Your task to perform on an android device: Clear the cart on costco.com. Search for "macbook pro" on costco.com, select the first entry, add it to the cart, then select checkout. Image 0: 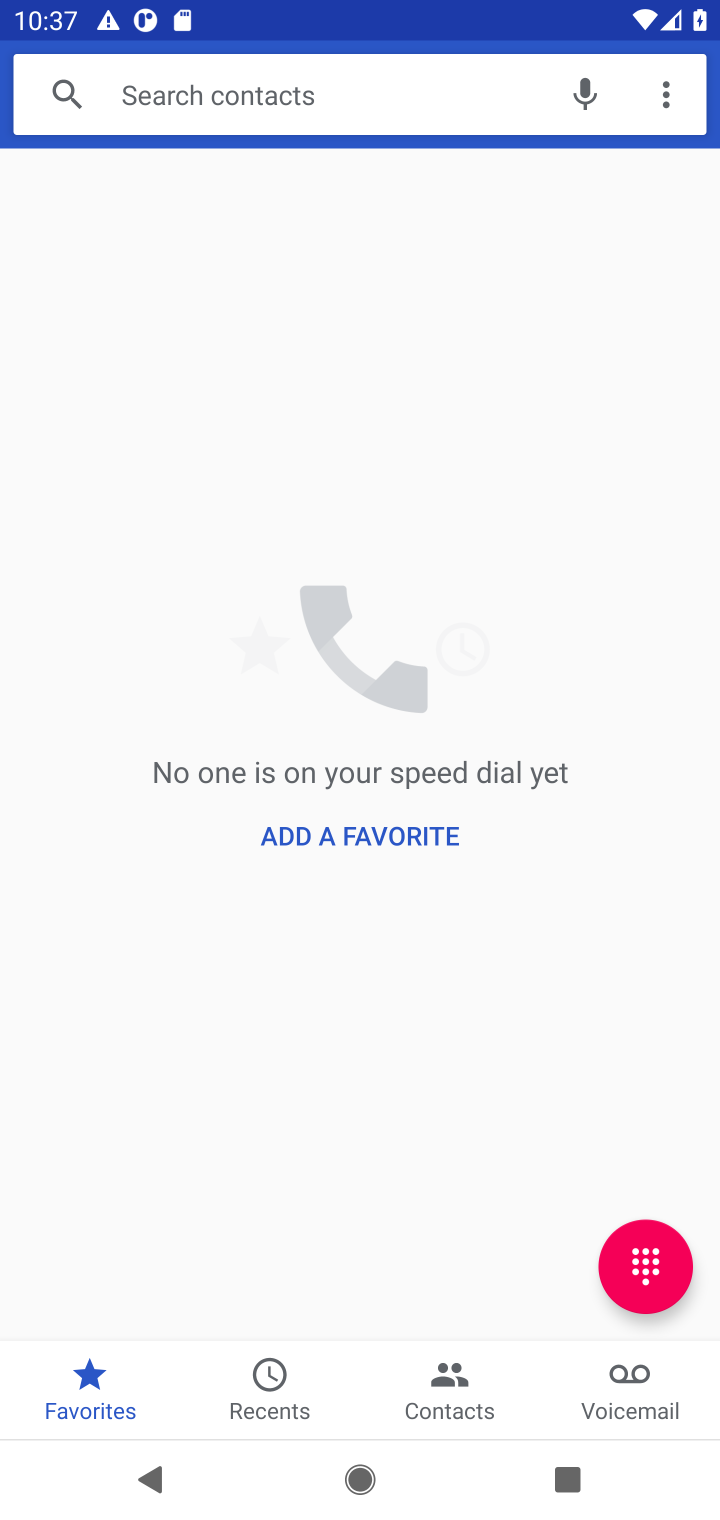
Step 0: press home button
Your task to perform on an android device: Clear the cart on costco.com. Search for "macbook pro" on costco.com, select the first entry, add it to the cart, then select checkout. Image 1: 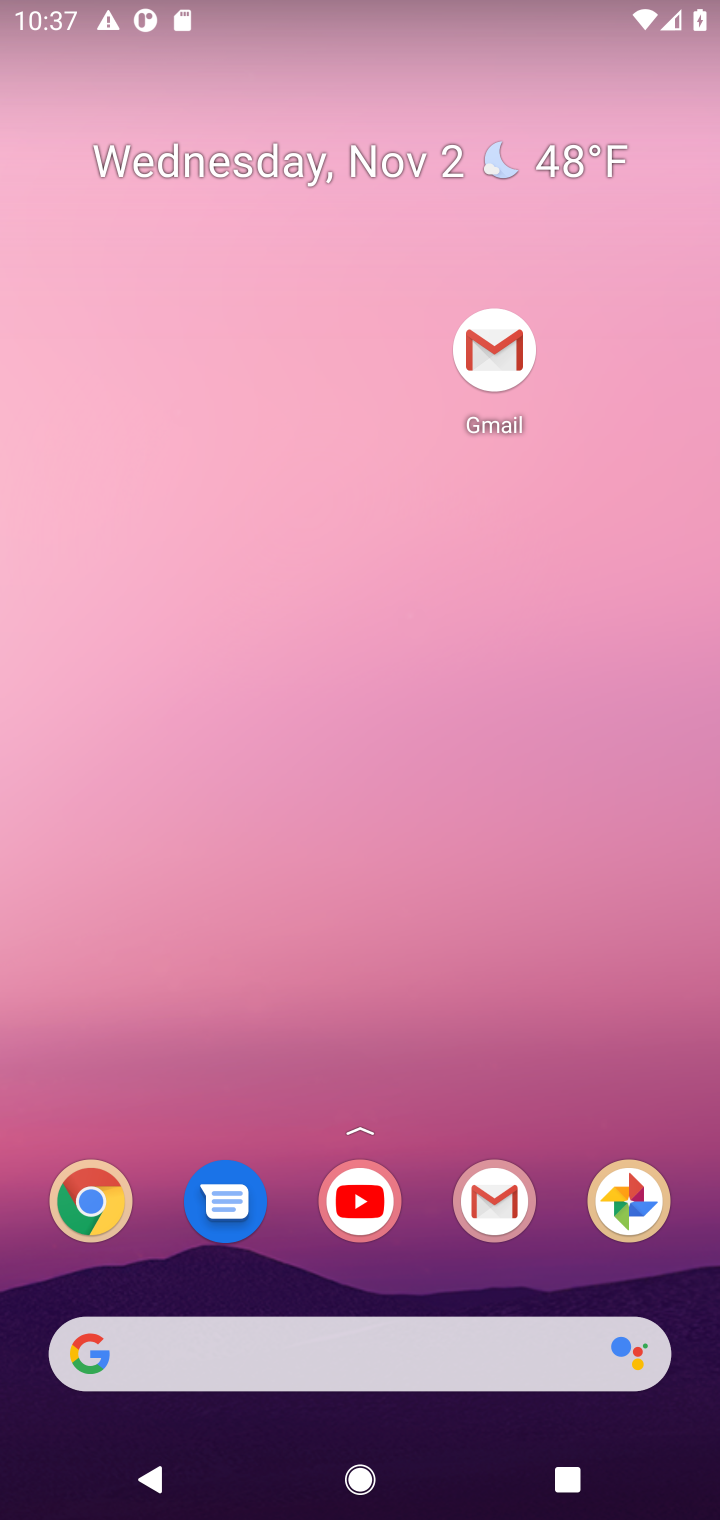
Step 1: drag from (424, 1306) to (432, 304)
Your task to perform on an android device: Clear the cart on costco.com. Search for "macbook pro" on costco.com, select the first entry, add it to the cart, then select checkout. Image 2: 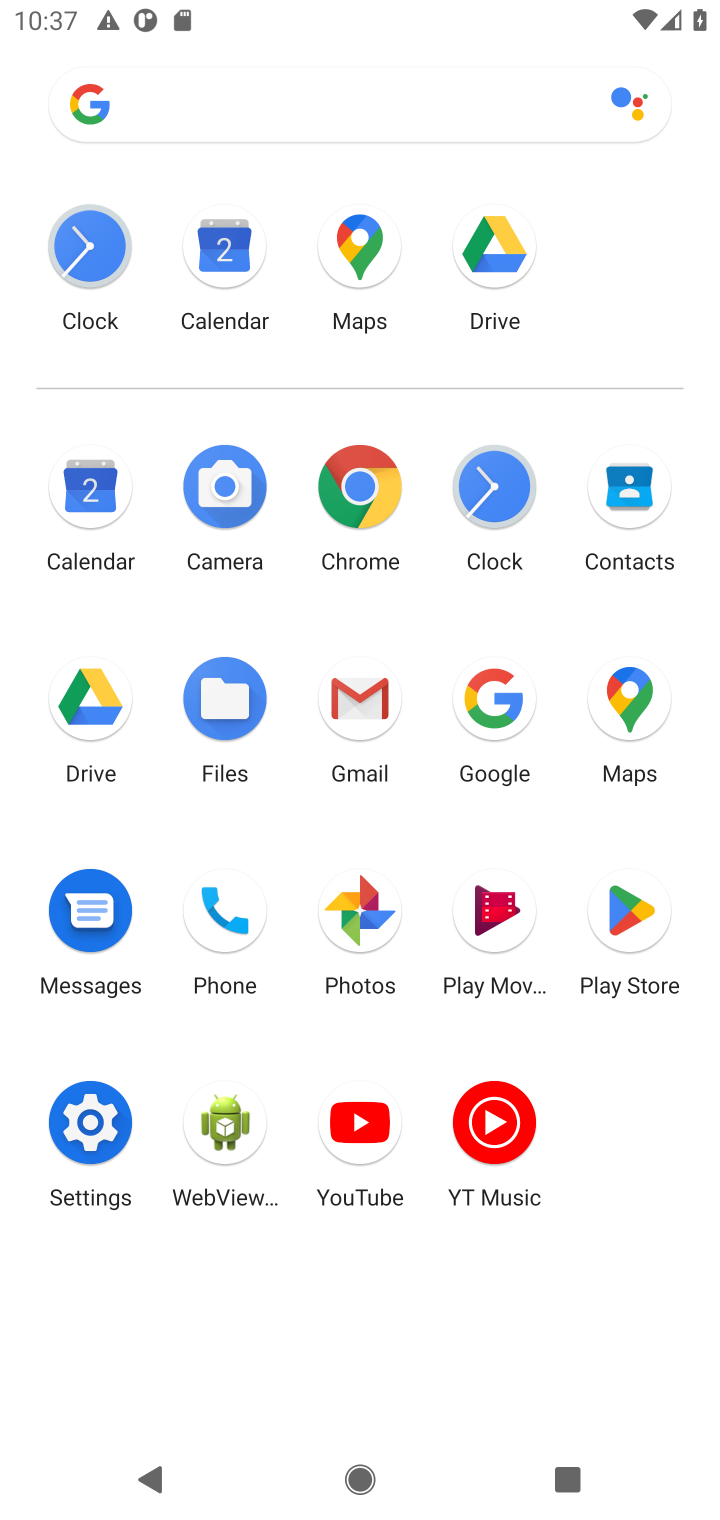
Step 2: click (365, 498)
Your task to perform on an android device: Clear the cart on costco.com. Search for "macbook pro" on costco.com, select the first entry, add it to the cart, then select checkout. Image 3: 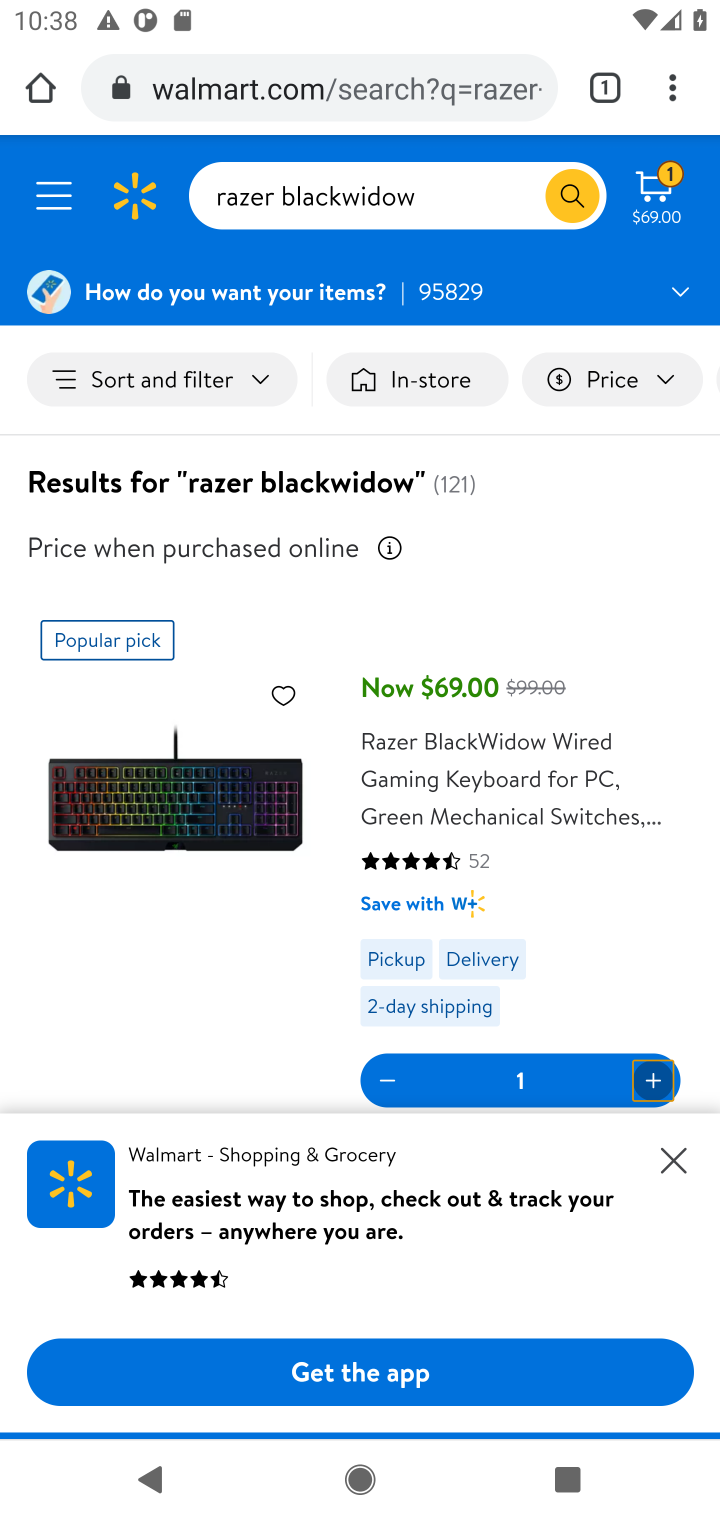
Step 3: click (353, 108)
Your task to perform on an android device: Clear the cart on costco.com. Search for "macbook pro" on costco.com, select the first entry, add it to the cart, then select checkout. Image 4: 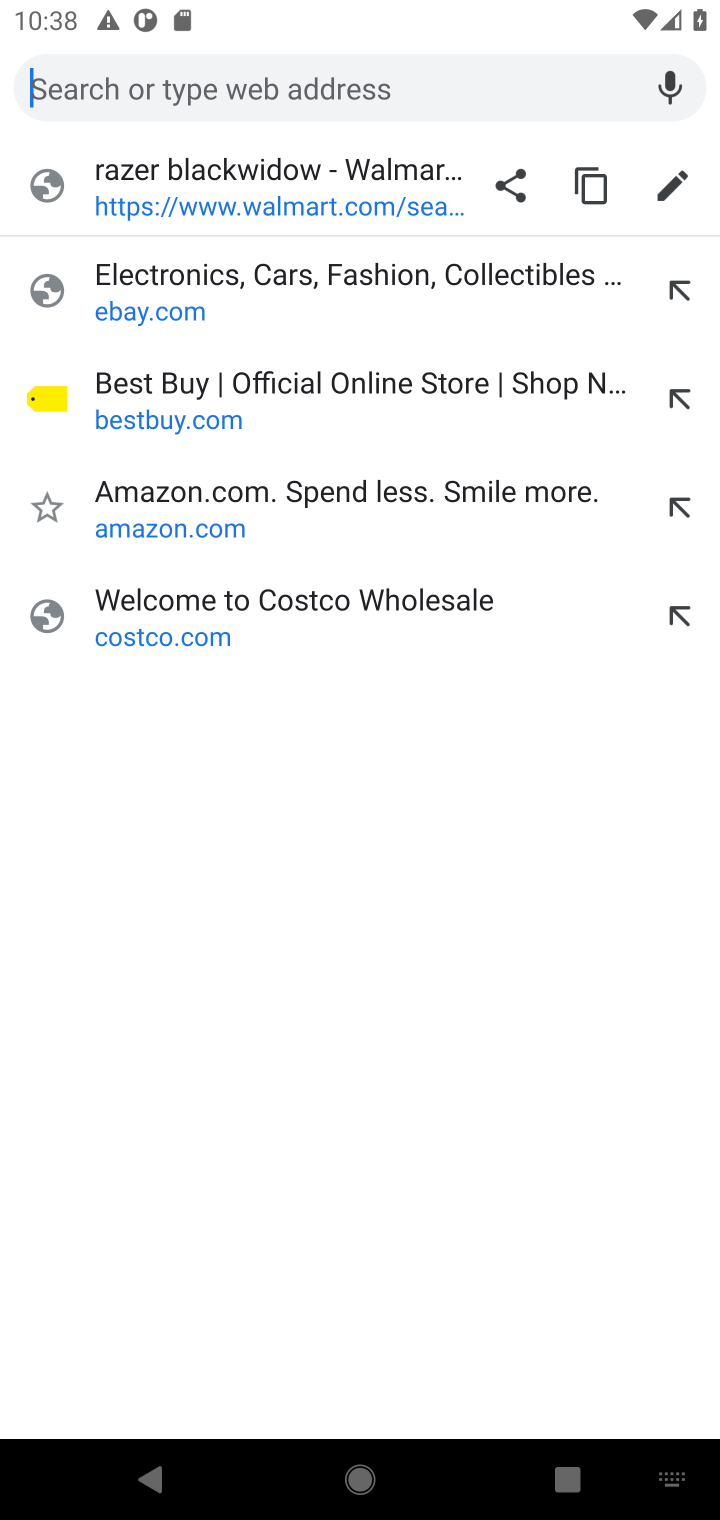
Step 4: type "costco.com"
Your task to perform on an android device: Clear the cart on costco.com. Search for "macbook pro" on costco.com, select the first entry, add it to the cart, then select checkout. Image 5: 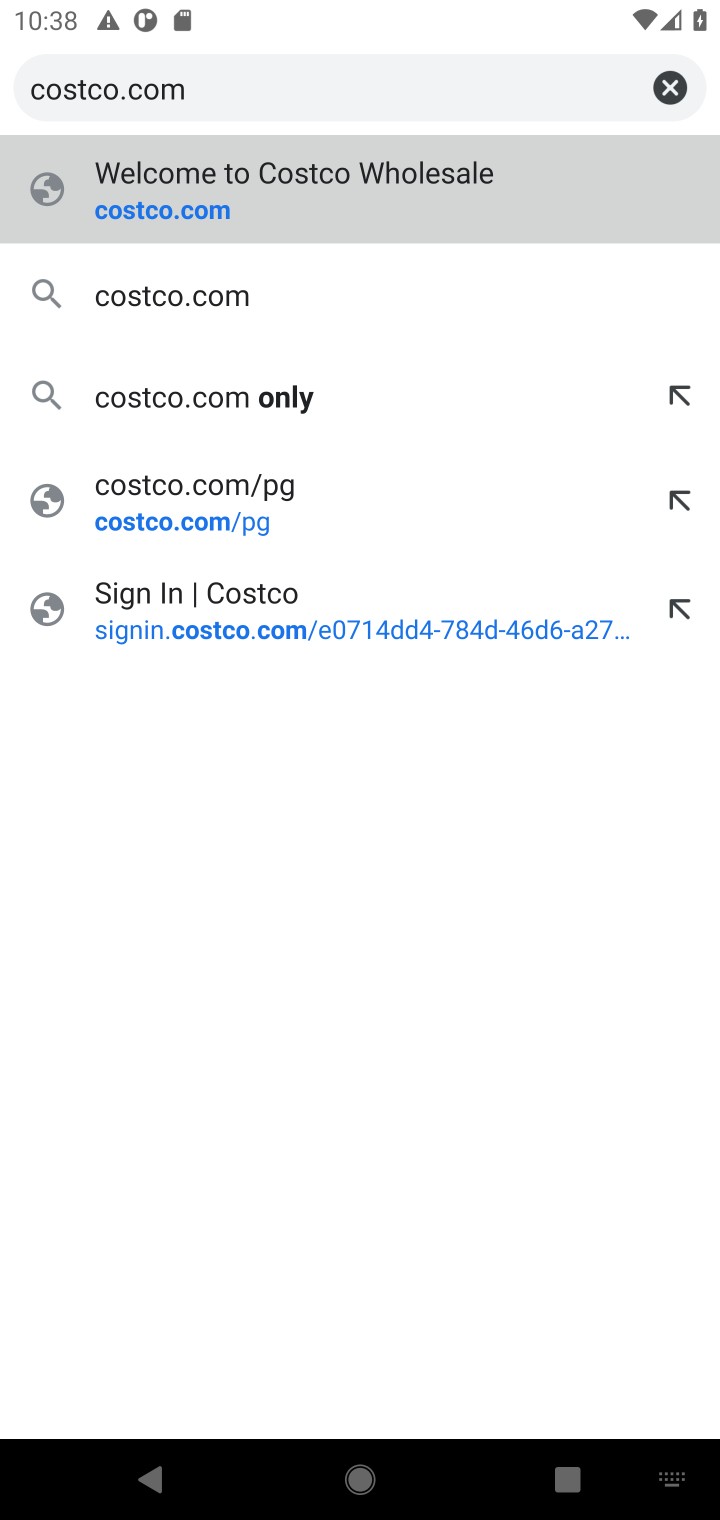
Step 5: press enter
Your task to perform on an android device: Clear the cart on costco.com. Search for "macbook pro" on costco.com, select the first entry, add it to the cart, then select checkout. Image 6: 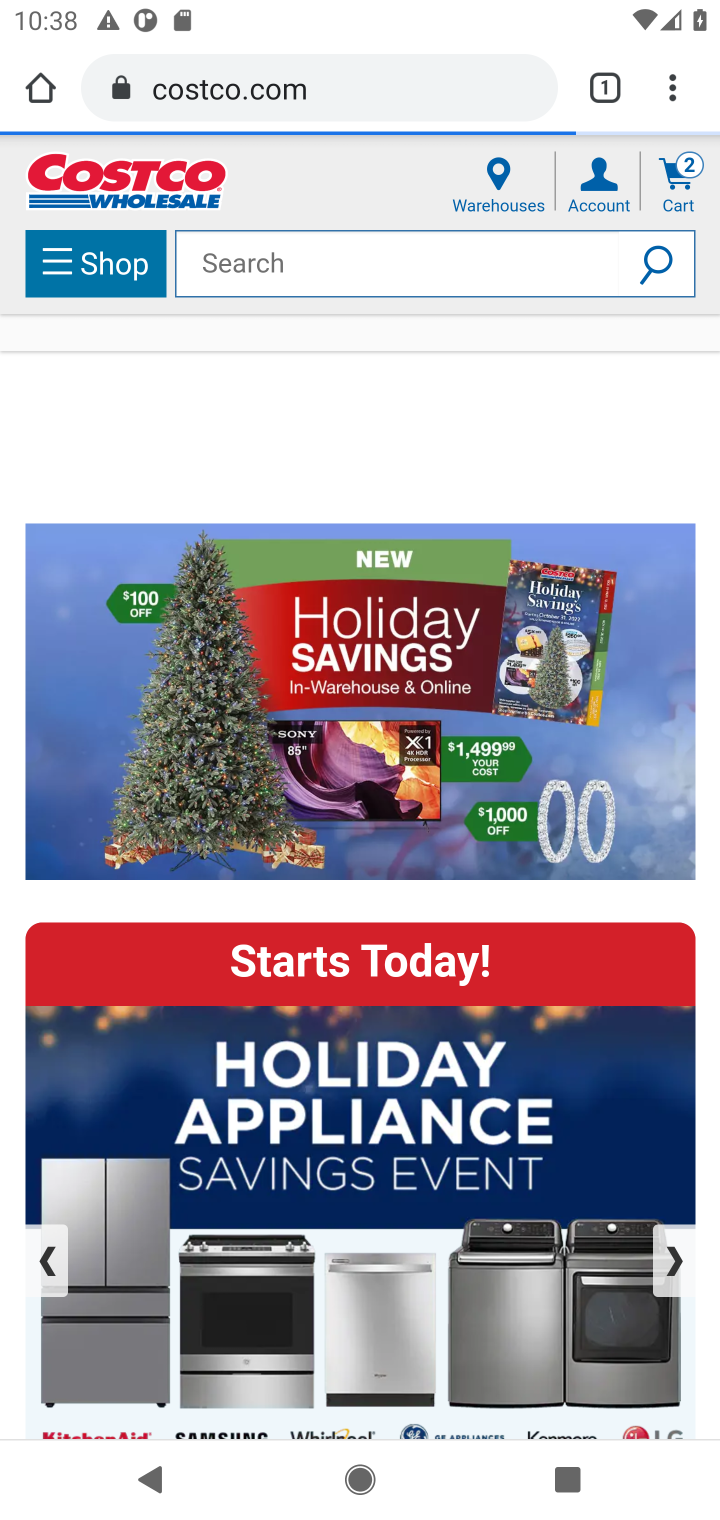
Step 6: click (672, 167)
Your task to perform on an android device: Clear the cart on costco.com. Search for "macbook pro" on costco.com, select the first entry, add it to the cart, then select checkout. Image 7: 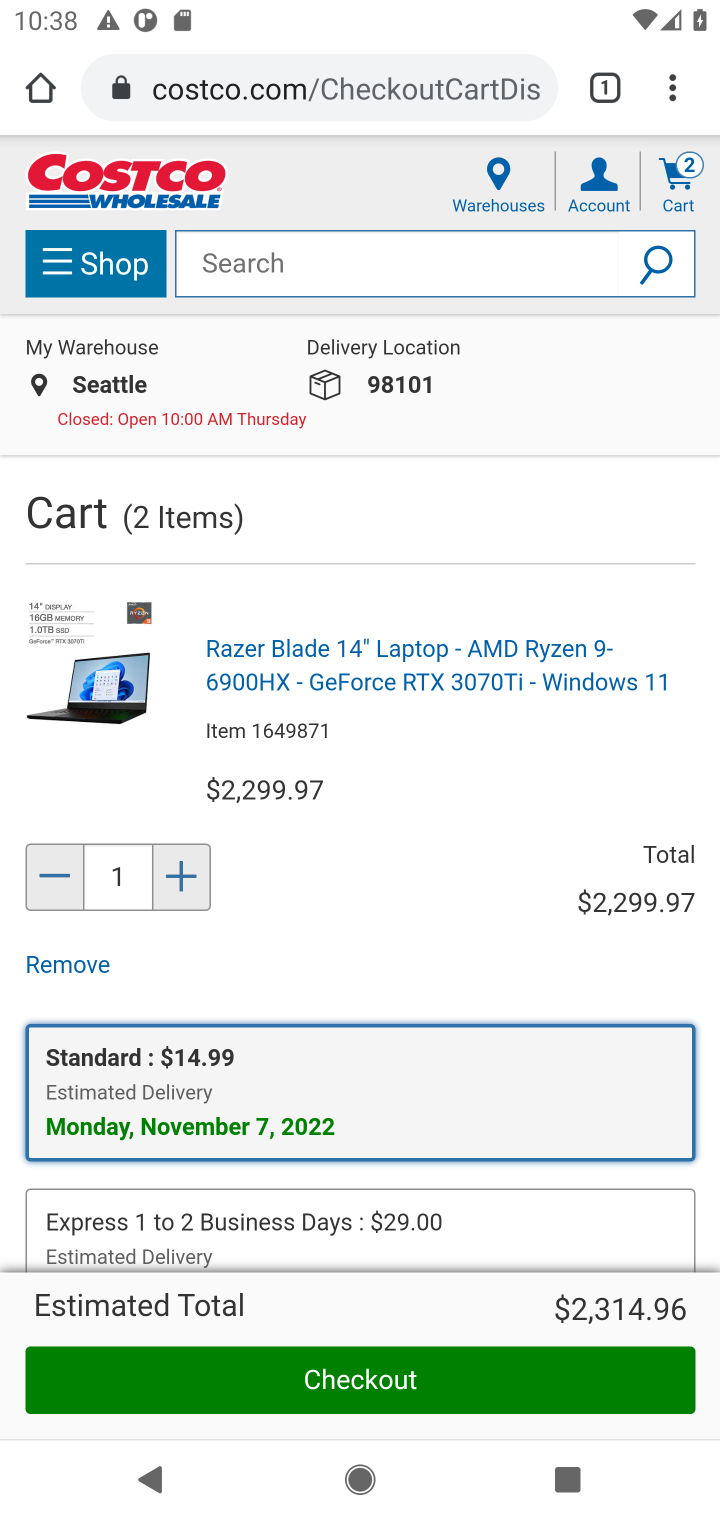
Step 7: click (99, 960)
Your task to perform on an android device: Clear the cart on costco.com. Search for "macbook pro" on costco.com, select the first entry, add it to the cart, then select checkout. Image 8: 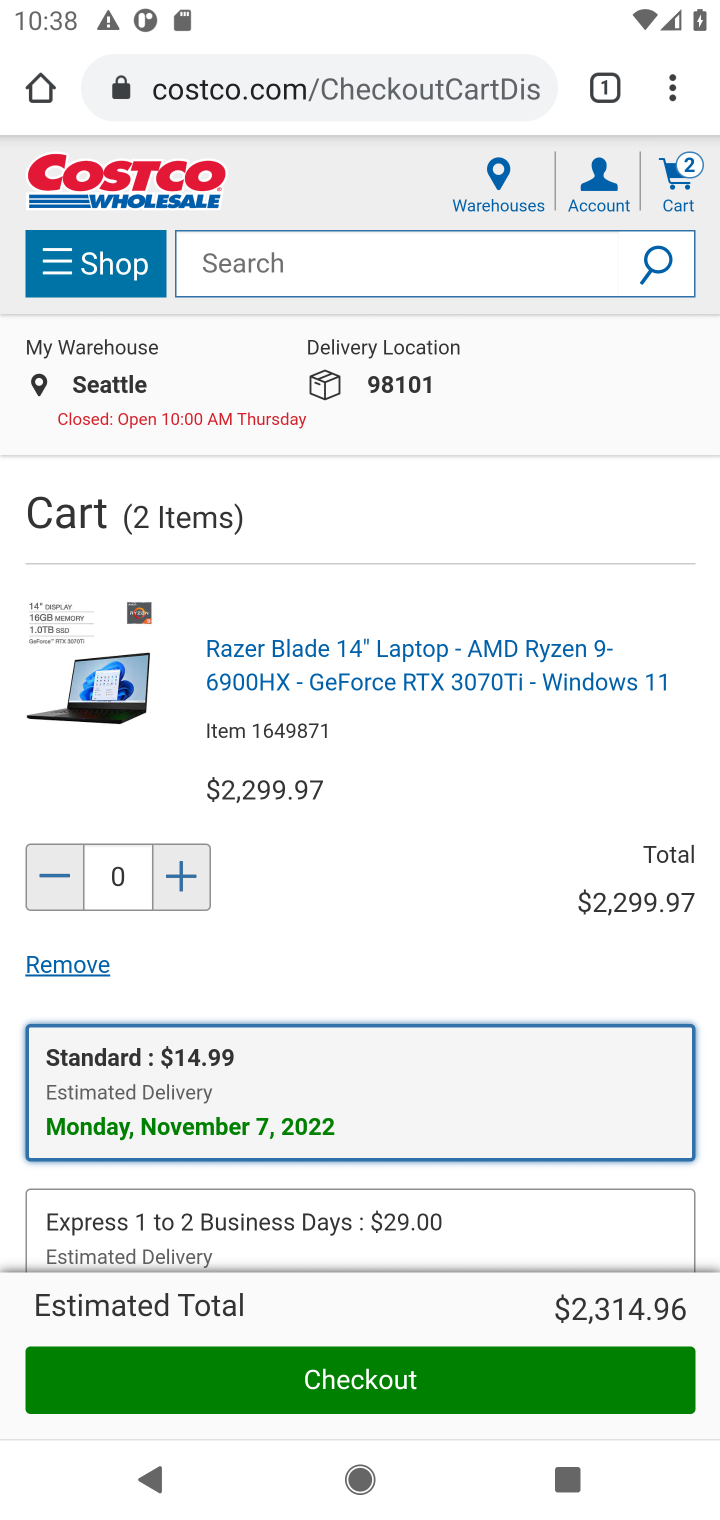
Step 8: click (53, 962)
Your task to perform on an android device: Clear the cart on costco.com. Search for "macbook pro" on costco.com, select the first entry, add it to the cart, then select checkout. Image 9: 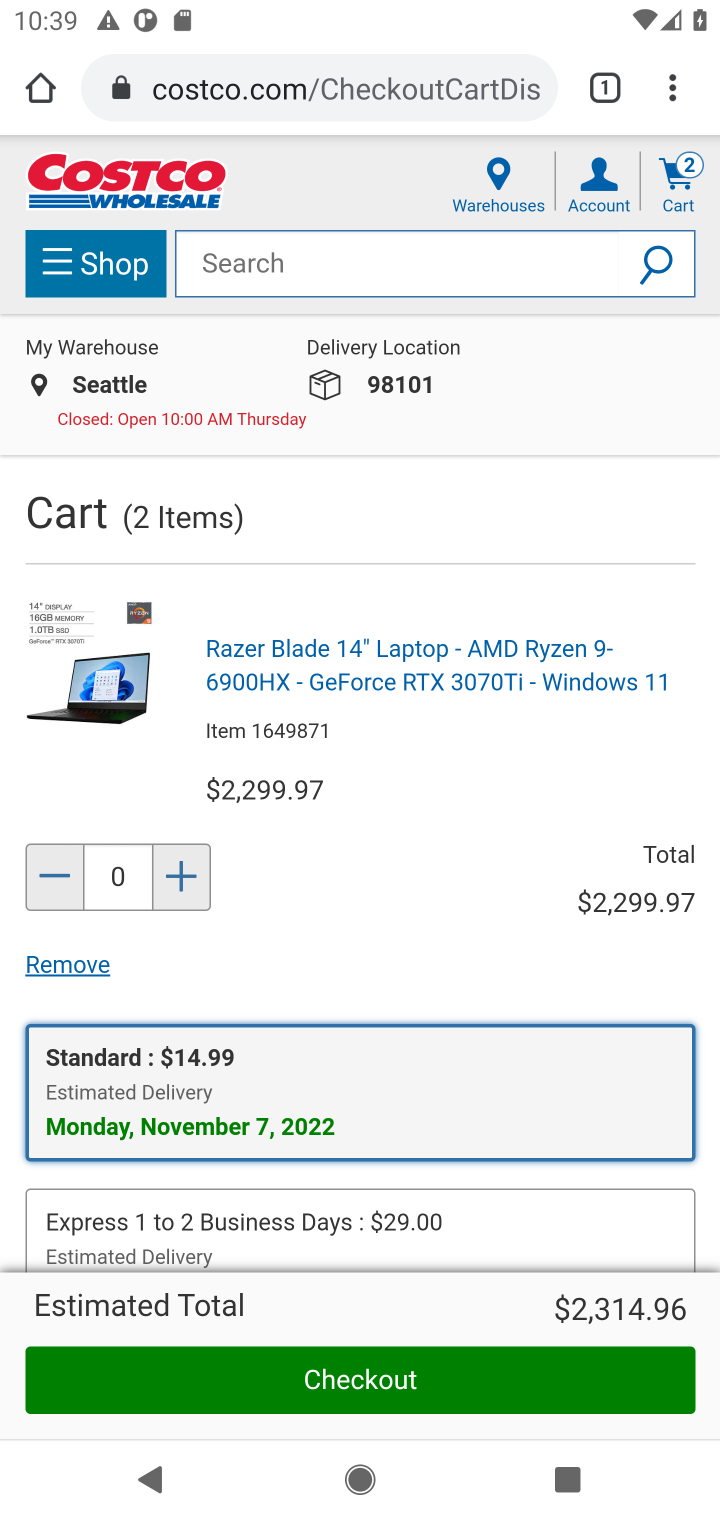
Step 9: click (70, 959)
Your task to perform on an android device: Clear the cart on costco.com. Search for "macbook pro" on costco.com, select the first entry, add it to the cart, then select checkout. Image 10: 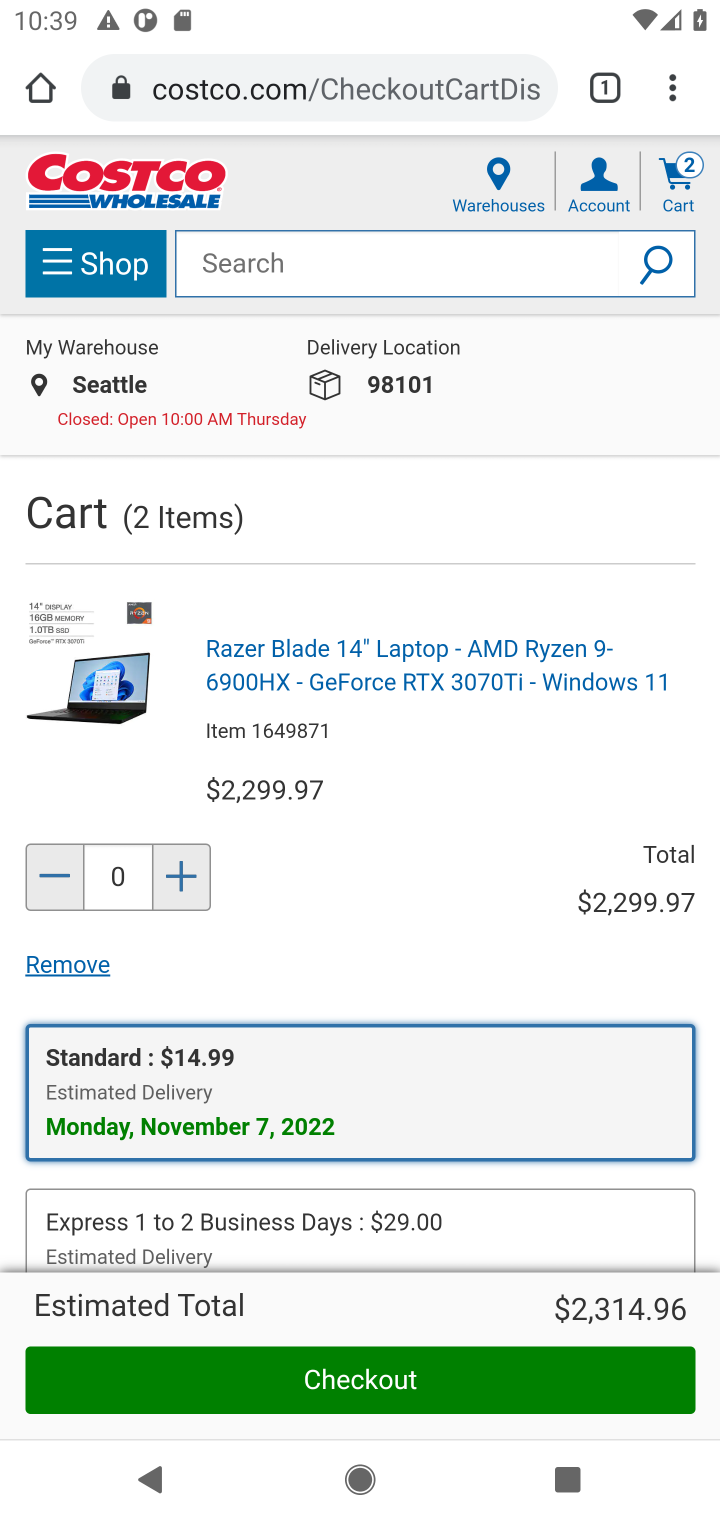
Step 10: click (414, 244)
Your task to perform on an android device: Clear the cart on costco.com. Search for "macbook pro" on costco.com, select the first entry, add it to the cart, then select checkout. Image 11: 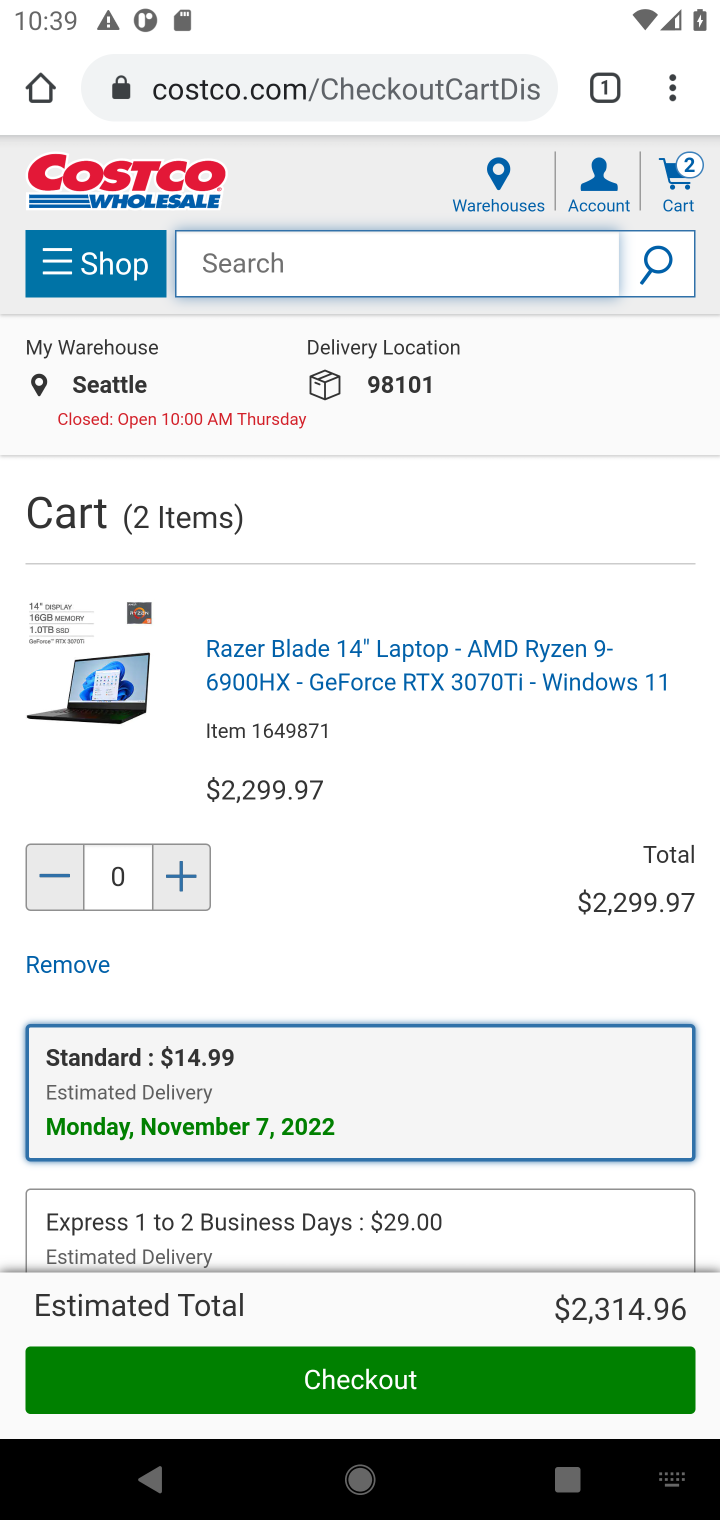
Step 11: type "macbook pro"
Your task to perform on an android device: Clear the cart on costco.com. Search for "macbook pro" on costco.com, select the first entry, add it to the cart, then select checkout. Image 12: 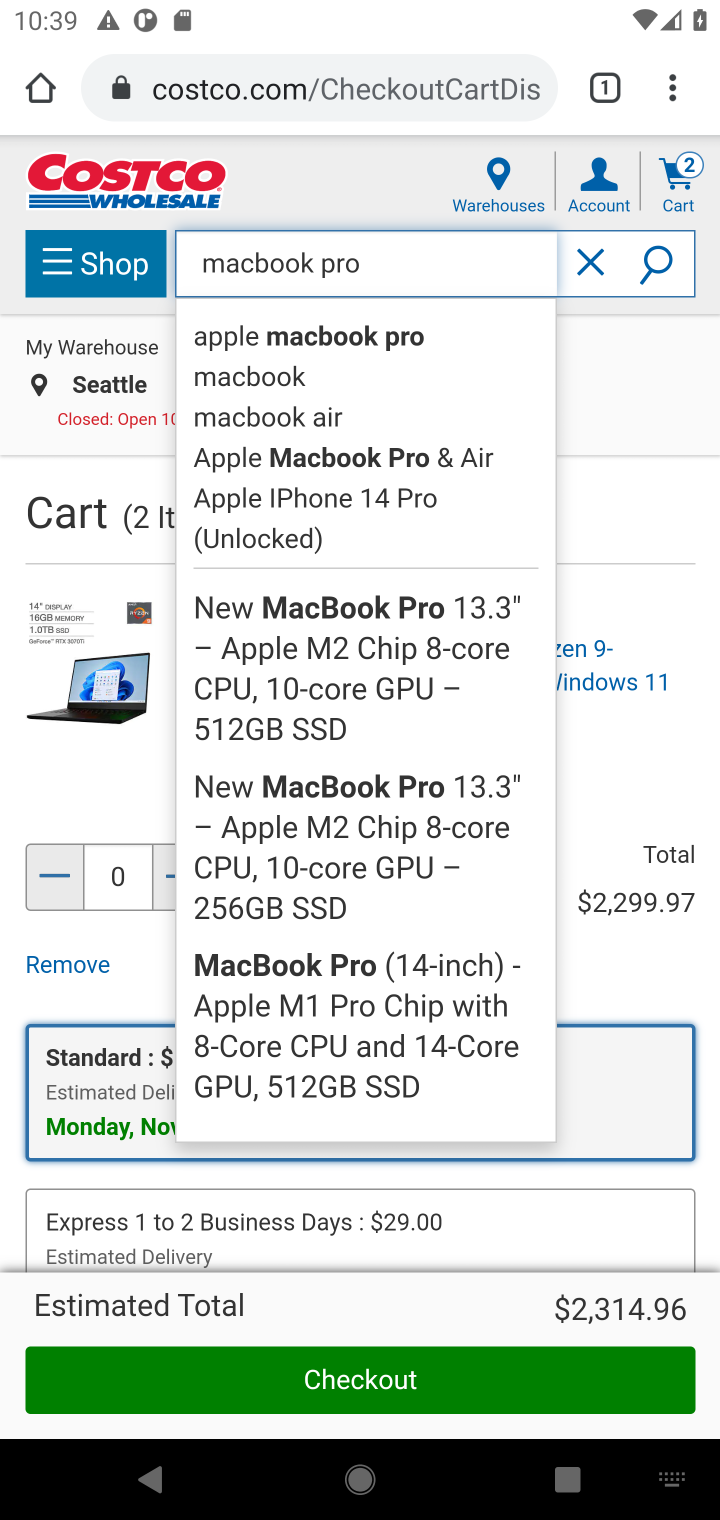
Step 12: press enter
Your task to perform on an android device: Clear the cart on costco.com. Search for "macbook pro" on costco.com, select the first entry, add it to the cart, then select checkout. Image 13: 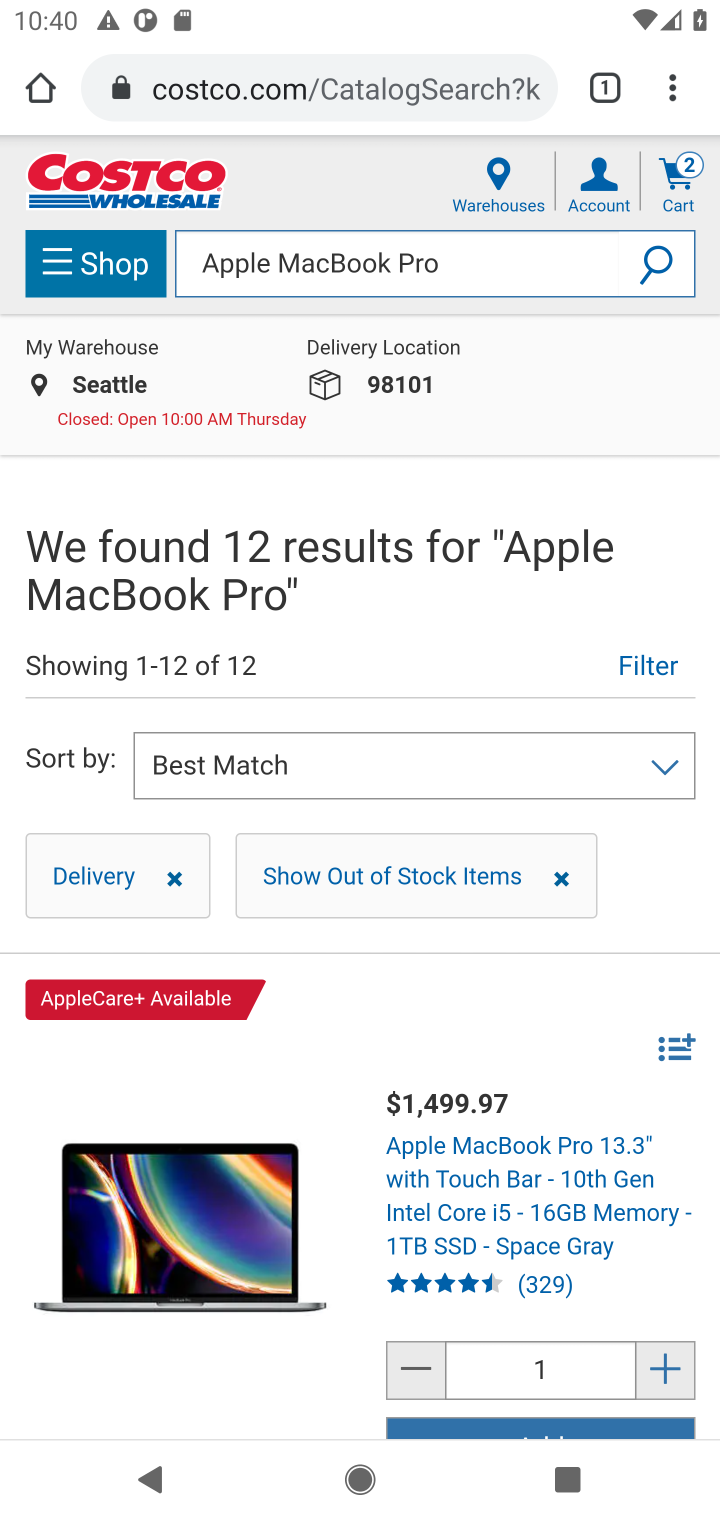
Step 13: click (486, 1221)
Your task to perform on an android device: Clear the cart on costco.com. Search for "macbook pro" on costco.com, select the first entry, add it to the cart, then select checkout. Image 14: 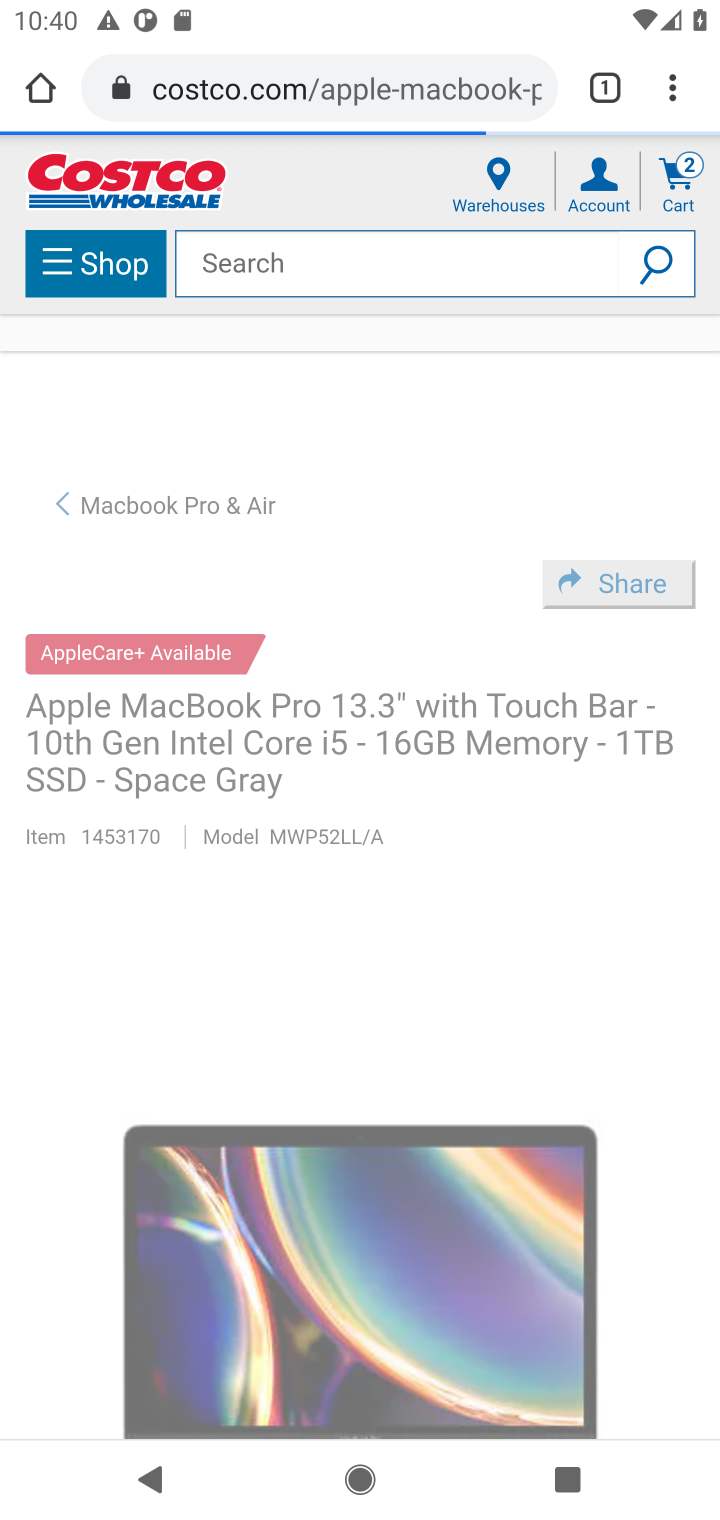
Step 14: drag from (486, 1221) to (419, 392)
Your task to perform on an android device: Clear the cart on costco.com. Search for "macbook pro" on costco.com, select the first entry, add it to the cart, then select checkout. Image 15: 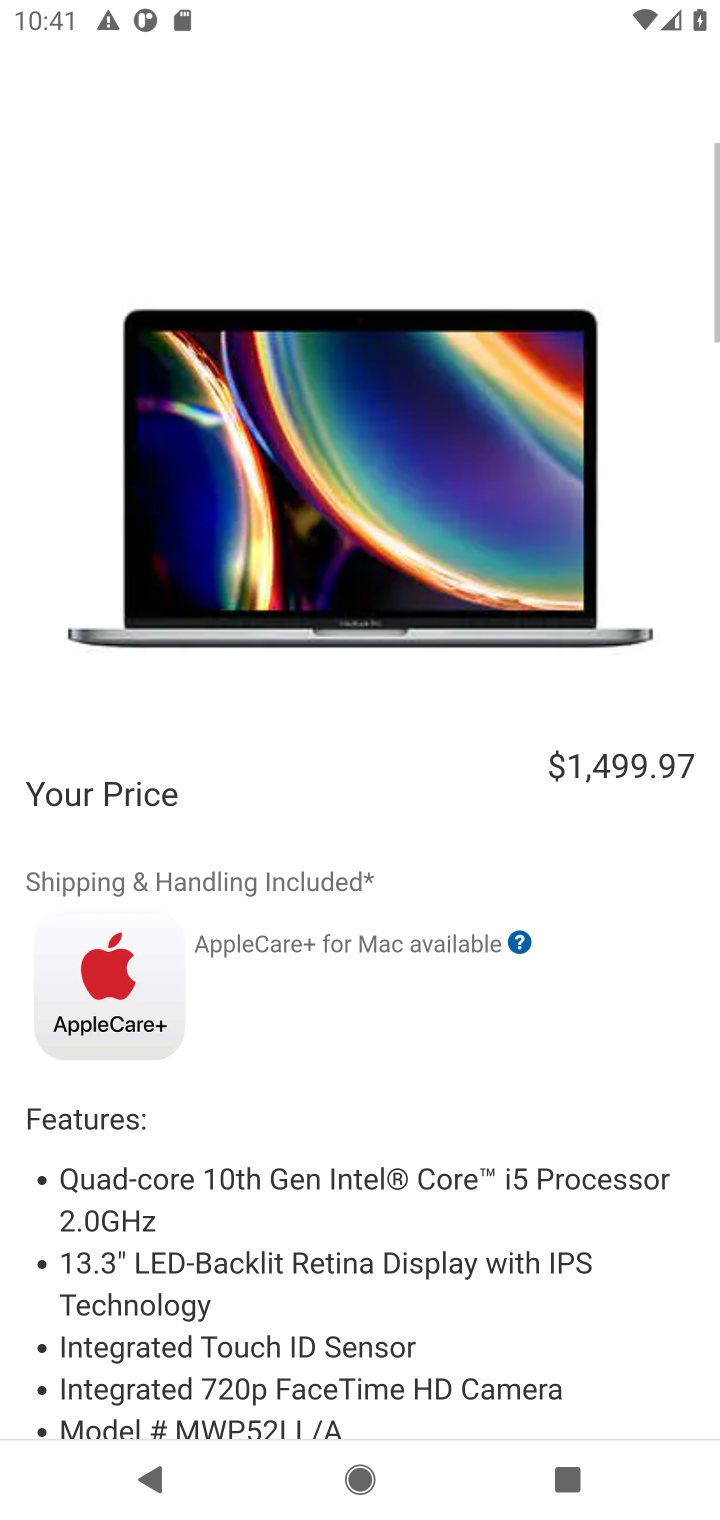
Step 15: drag from (360, 1237) to (380, 417)
Your task to perform on an android device: Clear the cart on costco.com. Search for "macbook pro" on costco.com, select the first entry, add it to the cart, then select checkout. Image 16: 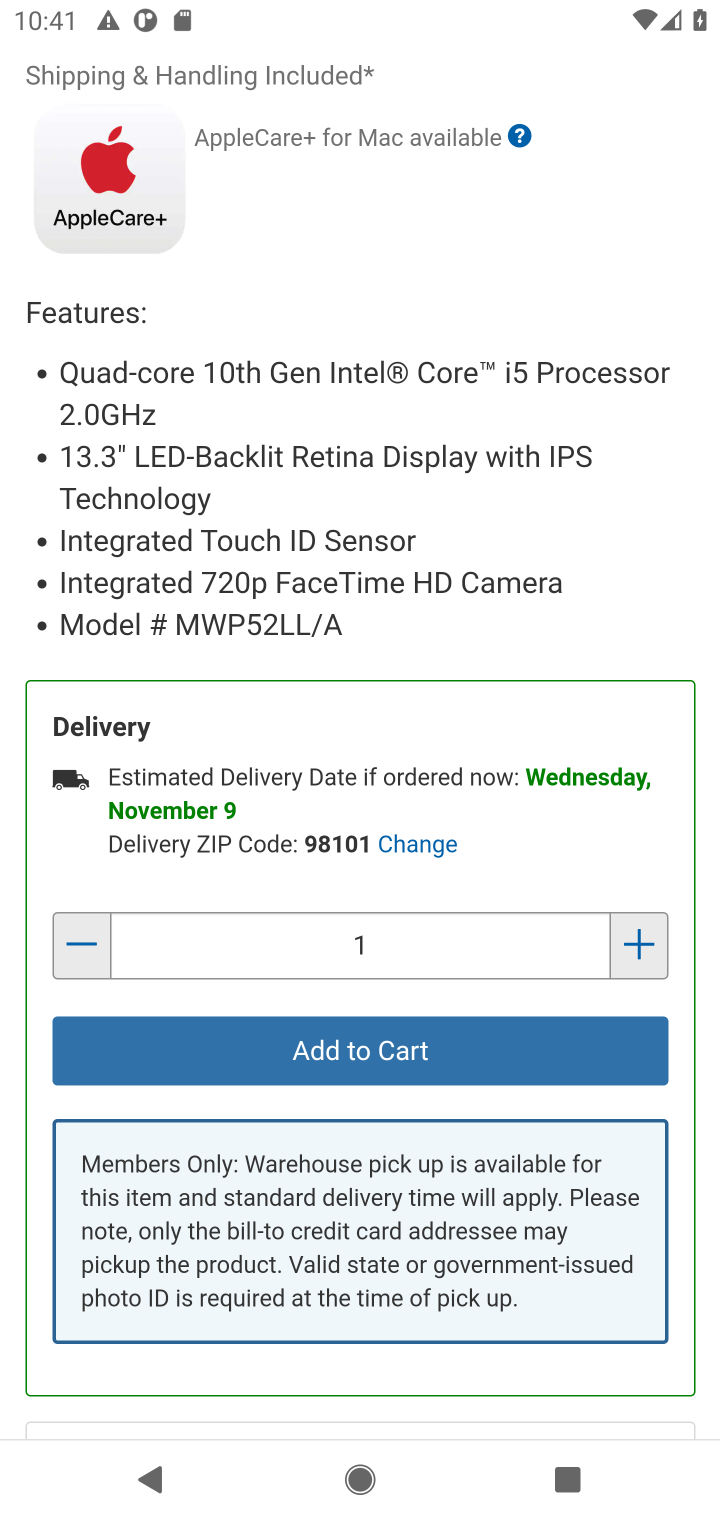
Step 16: click (461, 1048)
Your task to perform on an android device: Clear the cart on costco.com. Search for "macbook pro" on costco.com, select the first entry, add it to the cart, then select checkout. Image 17: 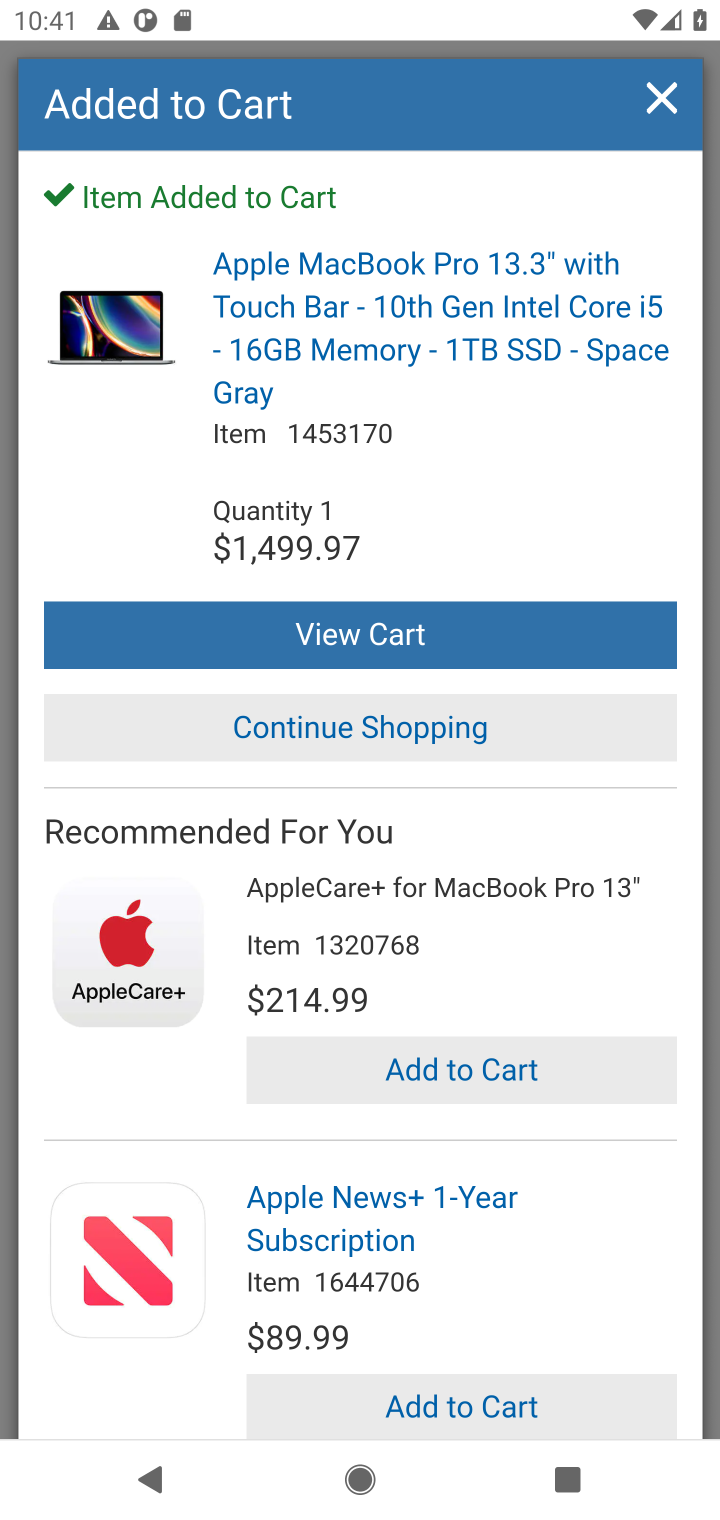
Step 17: click (451, 622)
Your task to perform on an android device: Clear the cart on costco.com. Search for "macbook pro" on costco.com, select the first entry, add it to the cart, then select checkout. Image 18: 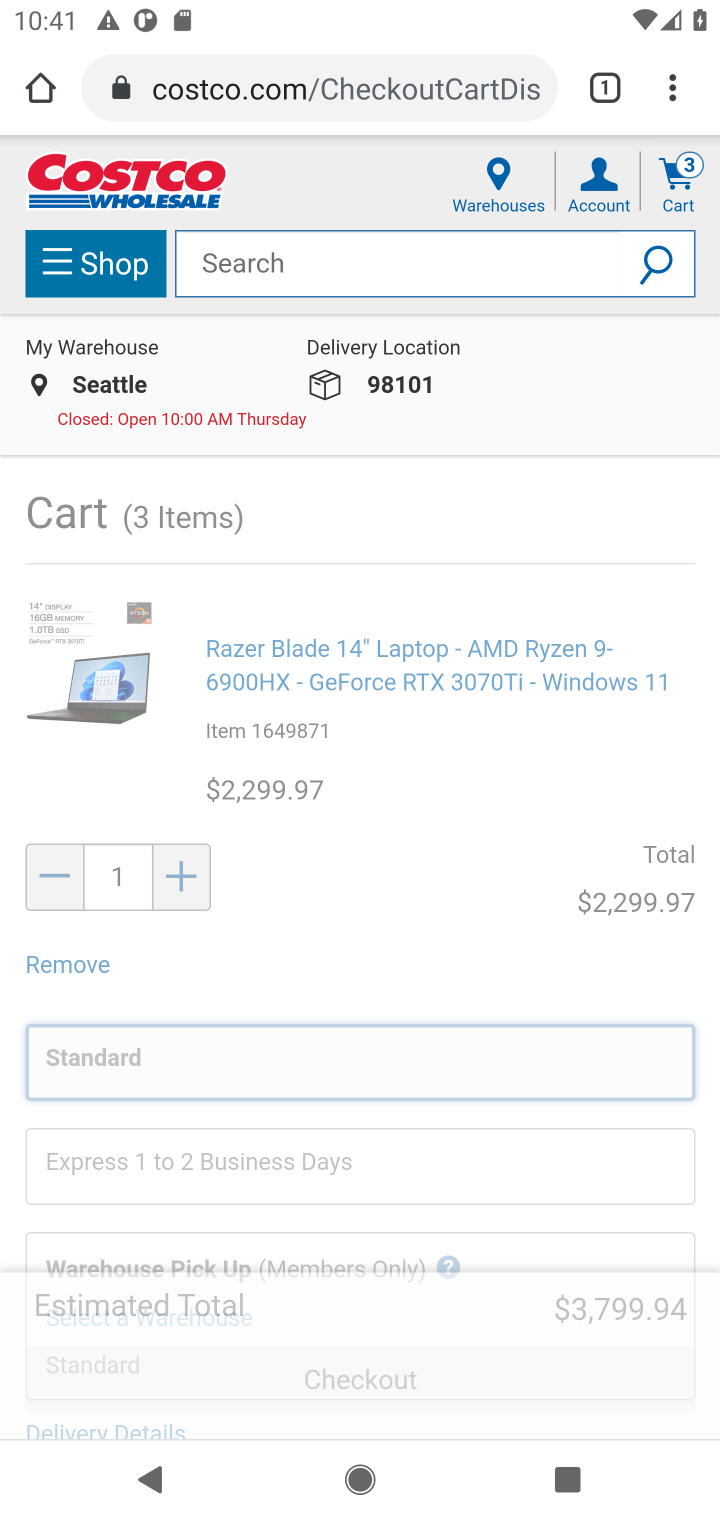
Step 18: drag from (332, 1058) to (373, 384)
Your task to perform on an android device: Clear the cart on costco.com. Search for "macbook pro" on costco.com, select the first entry, add it to the cart, then select checkout. Image 19: 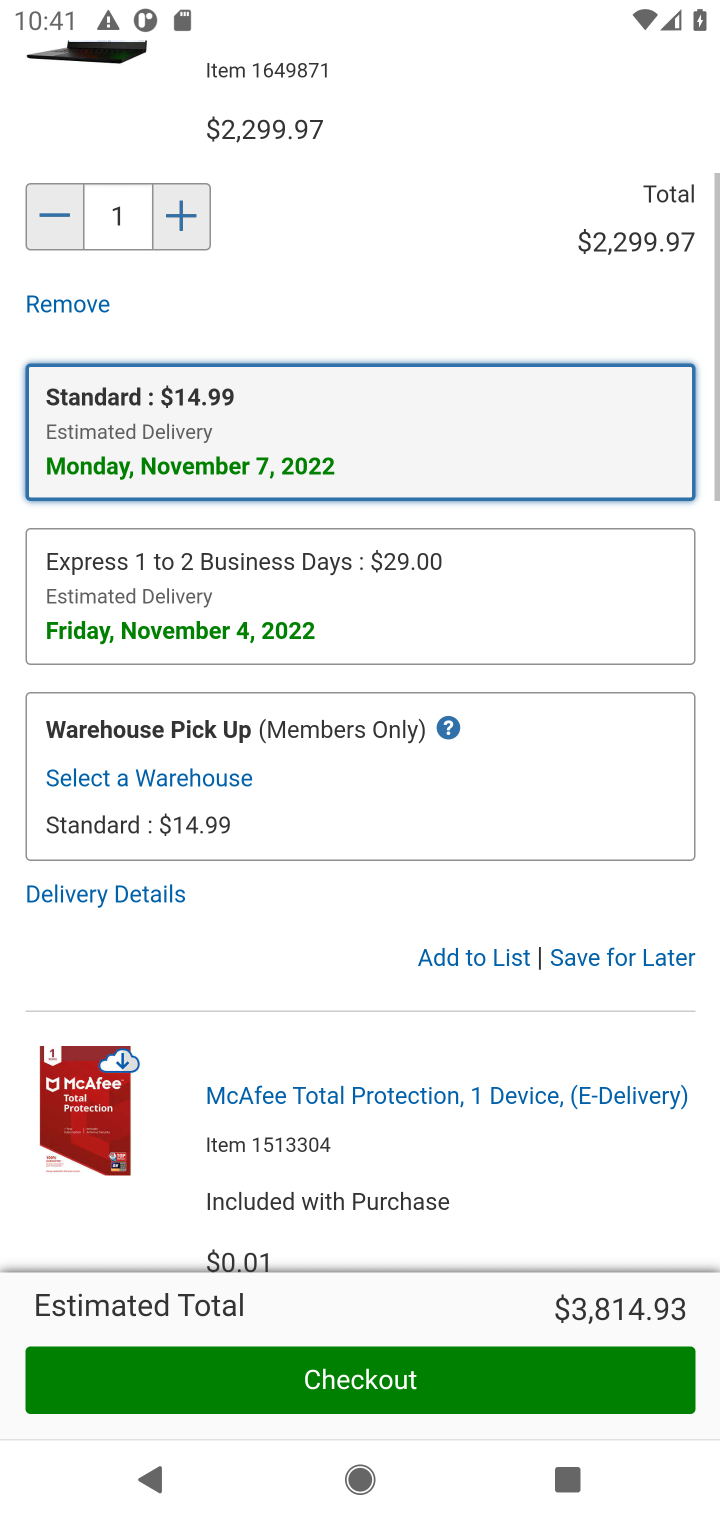
Step 19: click (435, 1379)
Your task to perform on an android device: Clear the cart on costco.com. Search for "macbook pro" on costco.com, select the first entry, add it to the cart, then select checkout. Image 20: 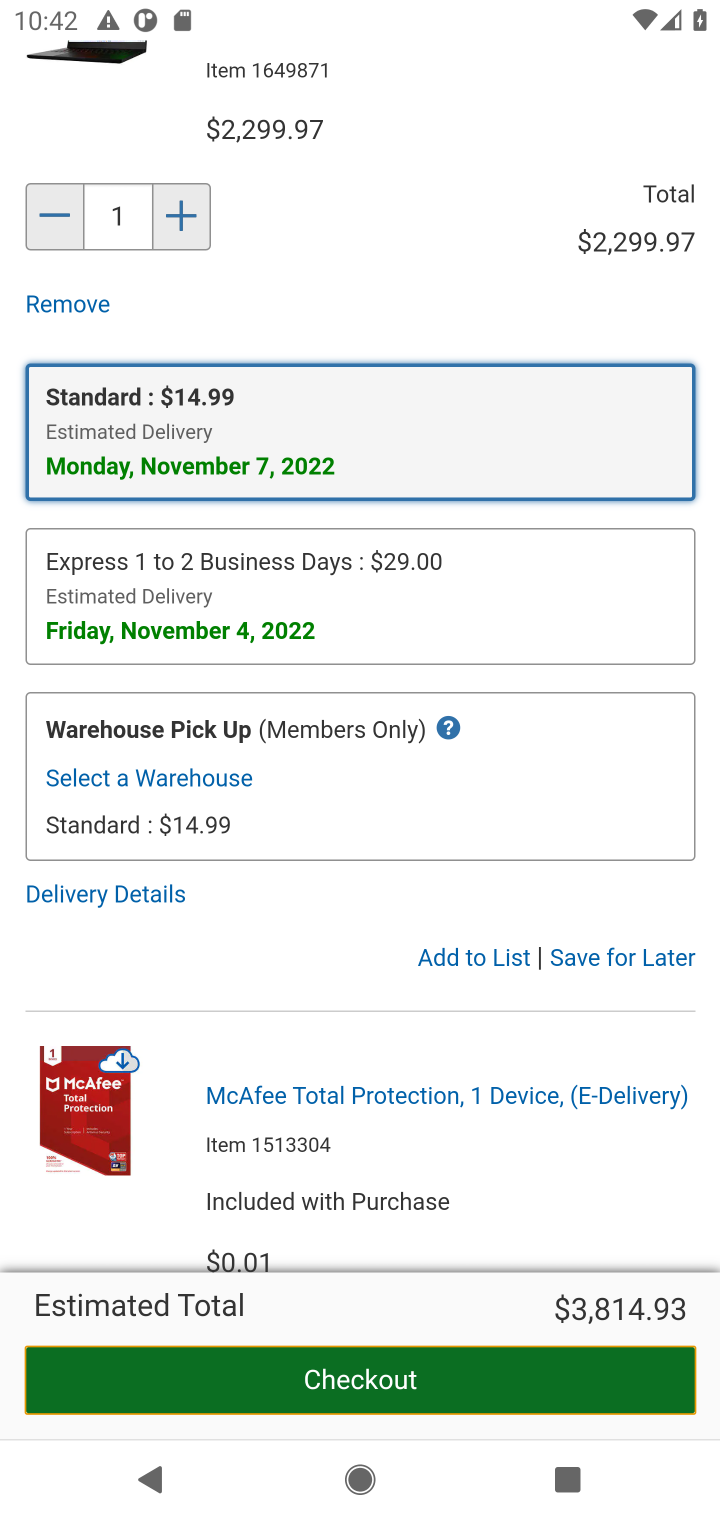
Step 20: click (619, 1381)
Your task to perform on an android device: Clear the cart on costco.com. Search for "macbook pro" on costco.com, select the first entry, add it to the cart, then select checkout. Image 21: 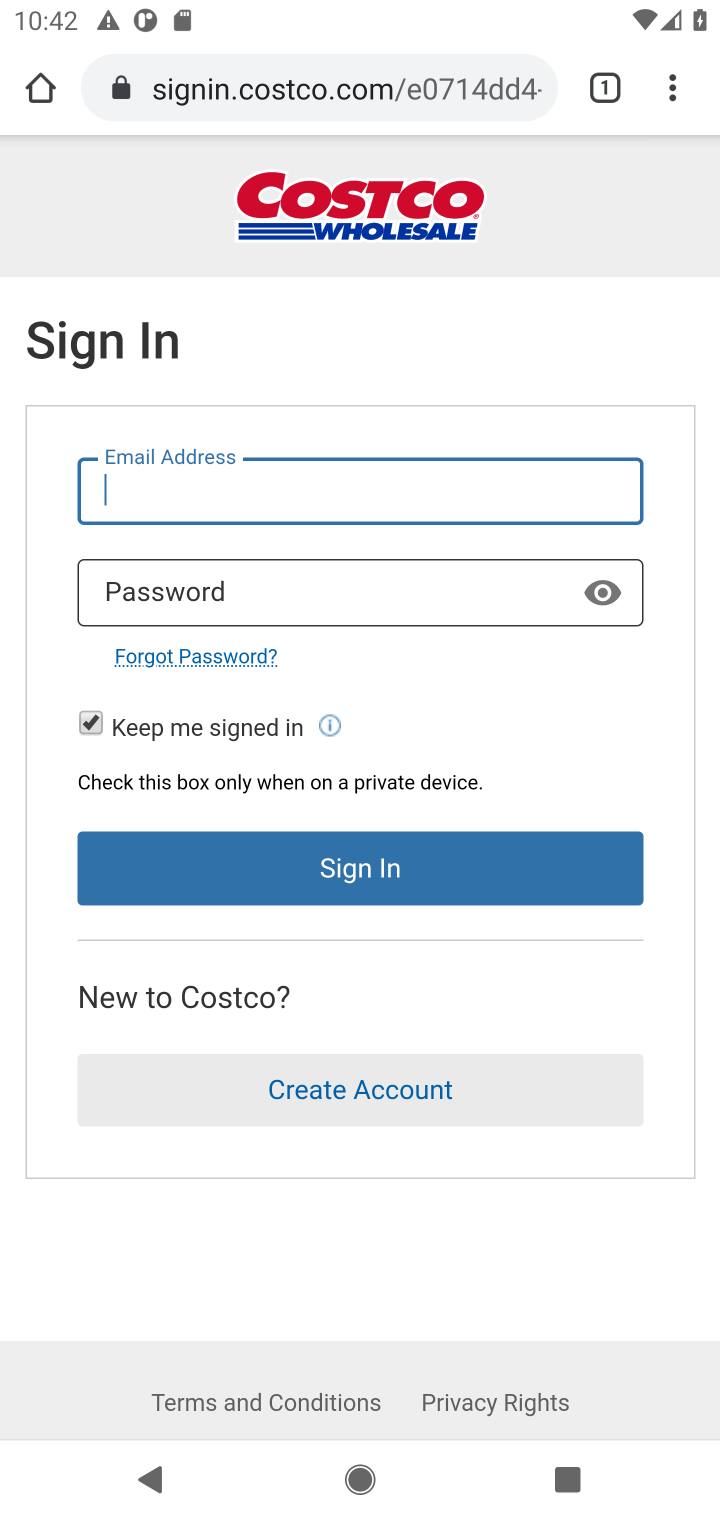
Step 21: task complete